Your task to perform on an android device: Open Android settings Image 0: 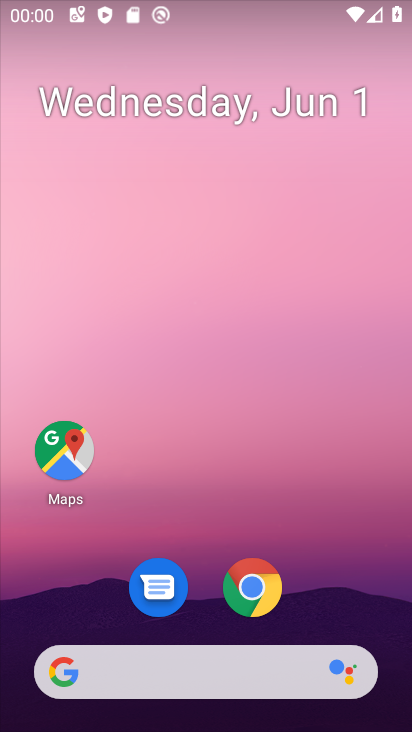
Step 0: drag from (308, 614) to (353, 0)
Your task to perform on an android device: Open Android settings Image 1: 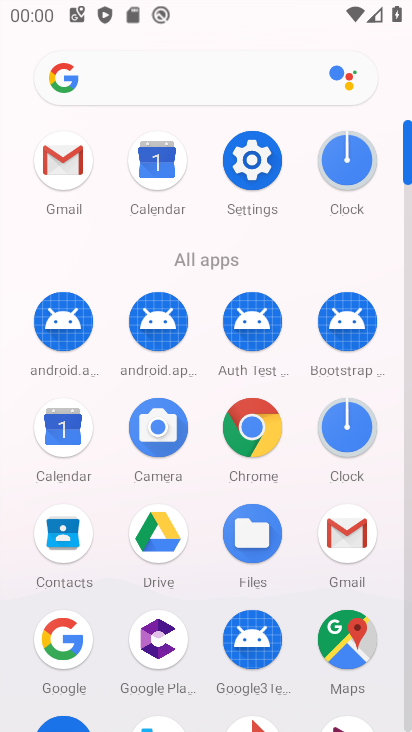
Step 1: click (234, 173)
Your task to perform on an android device: Open Android settings Image 2: 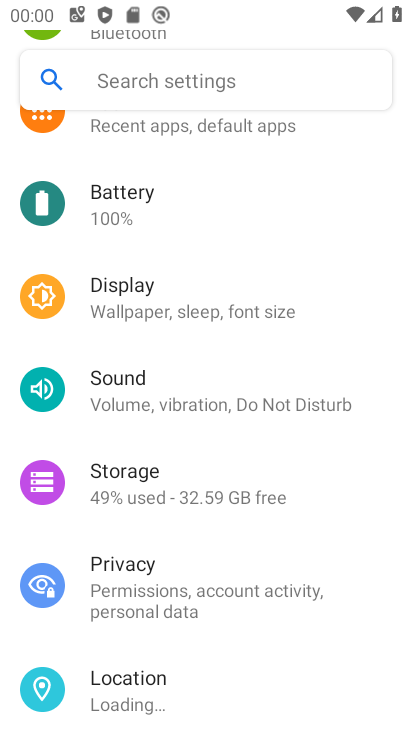
Step 2: drag from (148, 654) to (211, 45)
Your task to perform on an android device: Open Android settings Image 3: 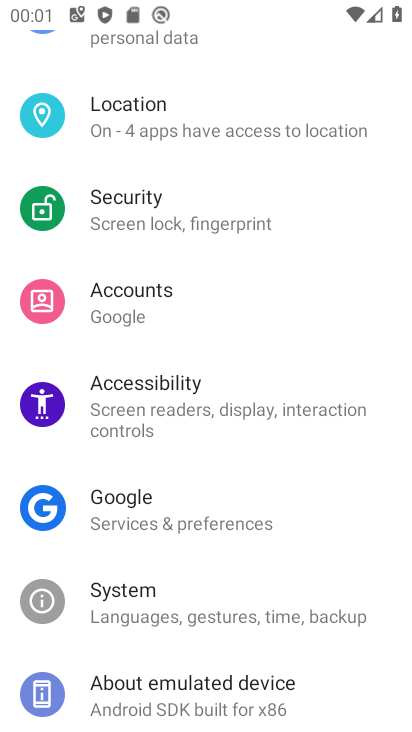
Step 3: click (121, 607)
Your task to perform on an android device: Open Android settings Image 4: 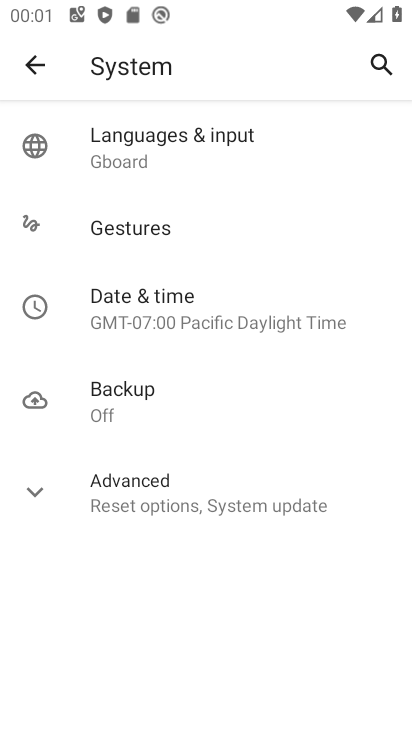
Step 4: task complete